Your task to perform on an android device: Open Yahoo.com Image 0: 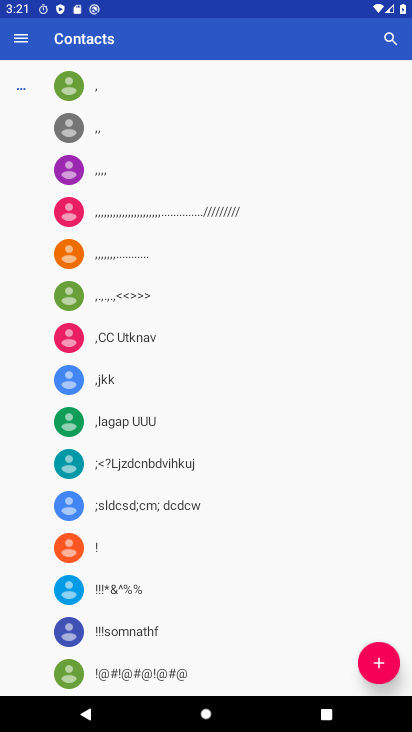
Step 0: press home button
Your task to perform on an android device: Open Yahoo.com Image 1: 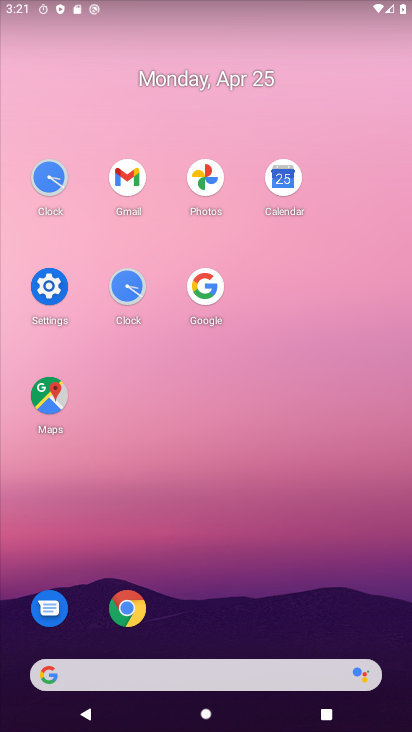
Step 1: click (124, 616)
Your task to perform on an android device: Open Yahoo.com Image 2: 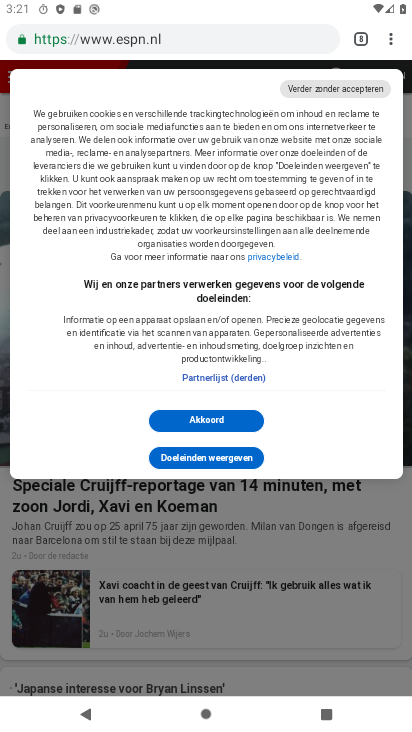
Step 2: click (360, 39)
Your task to perform on an android device: Open Yahoo.com Image 3: 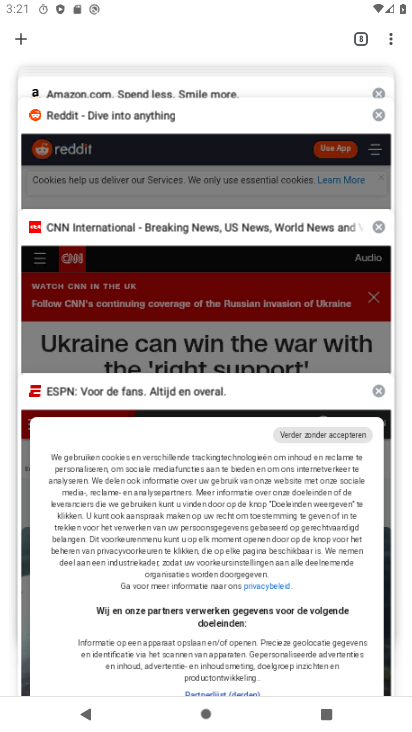
Step 3: click (15, 34)
Your task to perform on an android device: Open Yahoo.com Image 4: 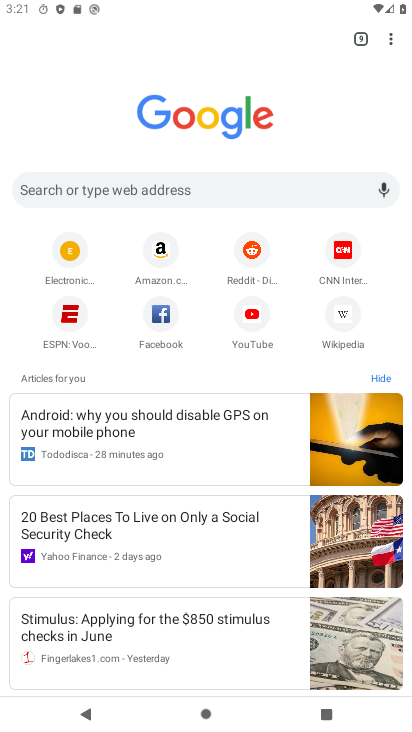
Step 4: click (122, 182)
Your task to perform on an android device: Open Yahoo.com Image 5: 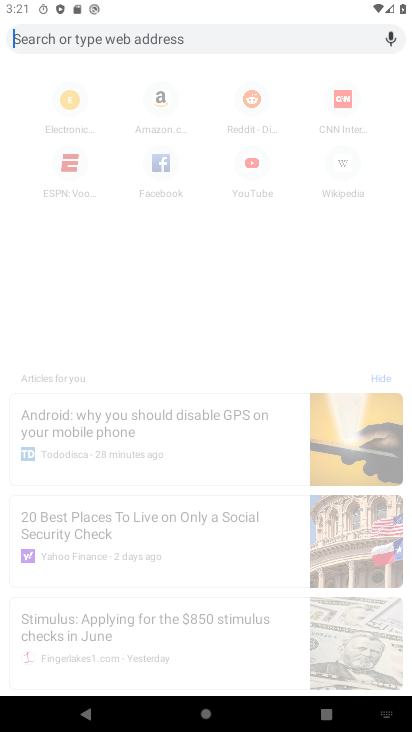
Step 5: type "yahoo"
Your task to perform on an android device: Open Yahoo.com Image 6: 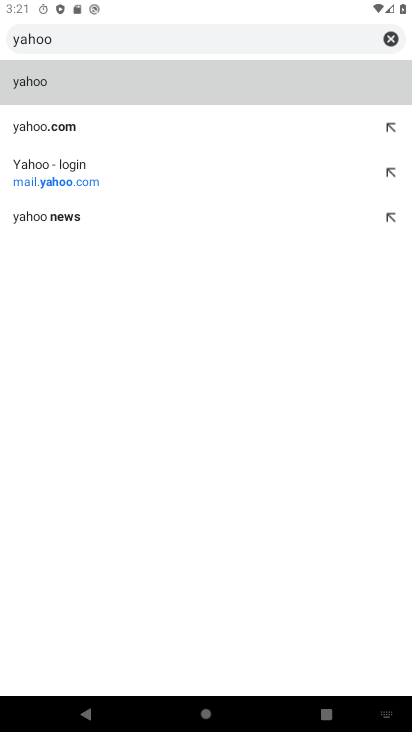
Step 6: click (75, 177)
Your task to perform on an android device: Open Yahoo.com Image 7: 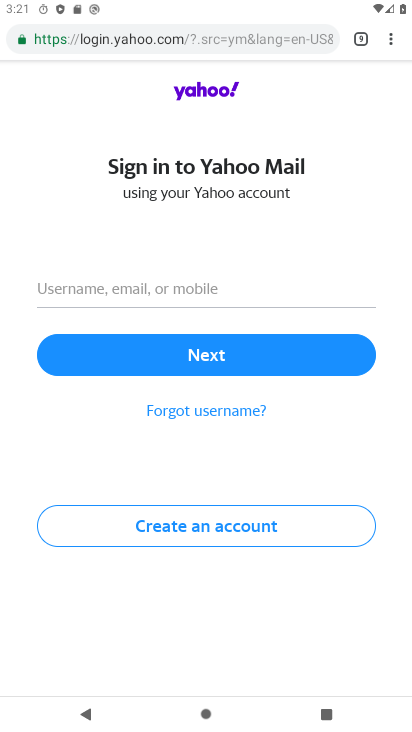
Step 7: task complete